Your task to perform on an android device: find photos in the google photos app Image 0: 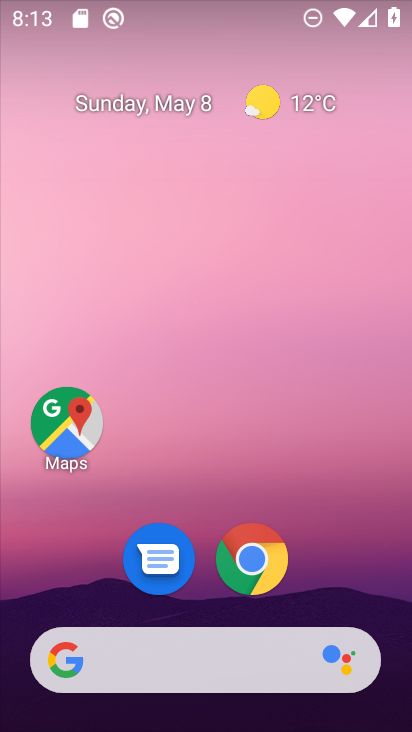
Step 0: drag from (347, 602) to (360, 3)
Your task to perform on an android device: find photos in the google photos app Image 1: 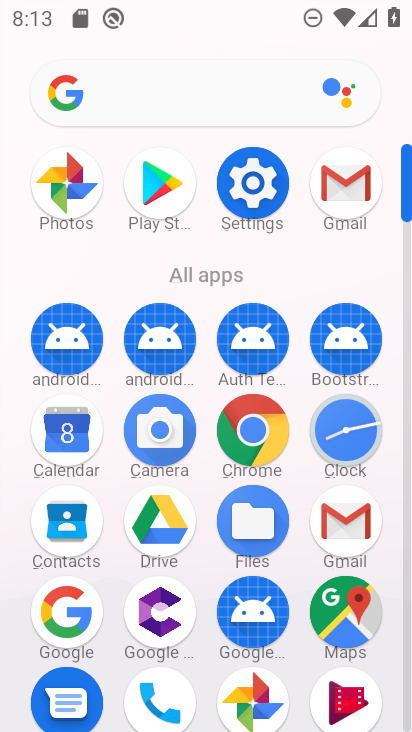
Step 1: click (55, 176)
Your task to perform on an android device: find photos in the google photos app Image 2: 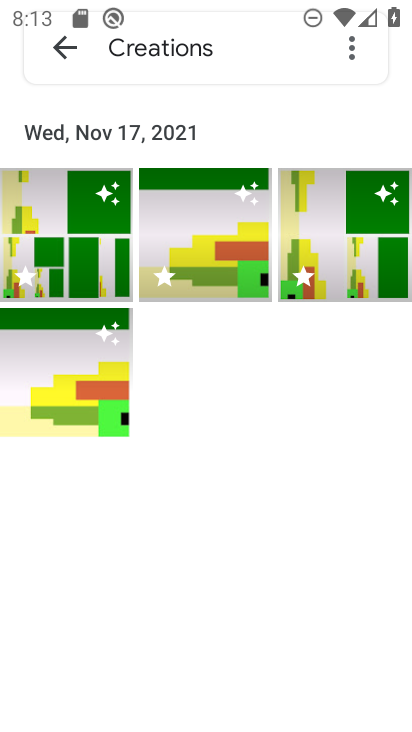
Step 2: click (63, 48)
Your task to perform on an android device: find photos in the google photos app Image 3: 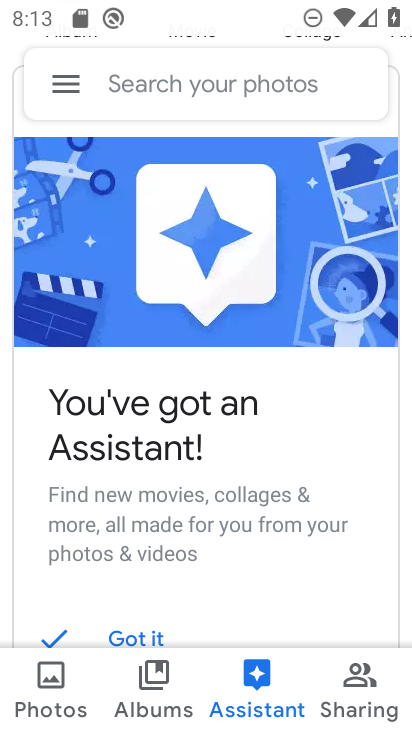
Step 3: click (51, 694)
Your task to perform on an android device: find photos in the google photos app Image 4: 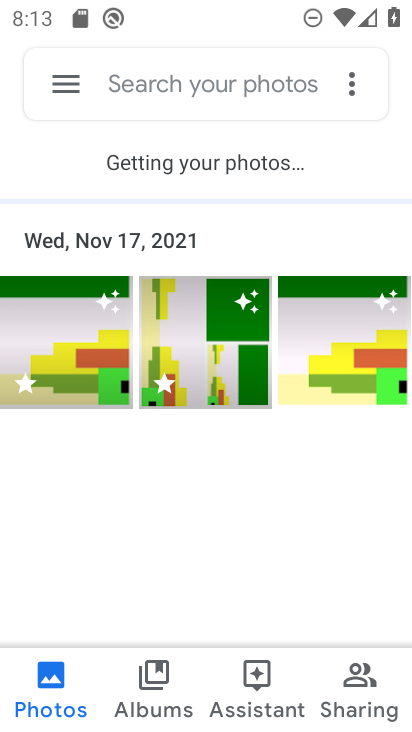
Step 4: task complete